Your task to perform on an android device: Open Google Chrome Image 0: 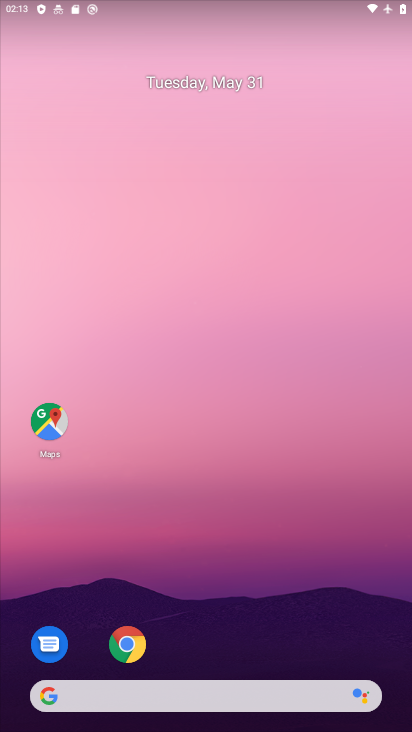
Step 0: click (128, 645)
Your task to perform on an android device: Open Google Chrome Image 1: 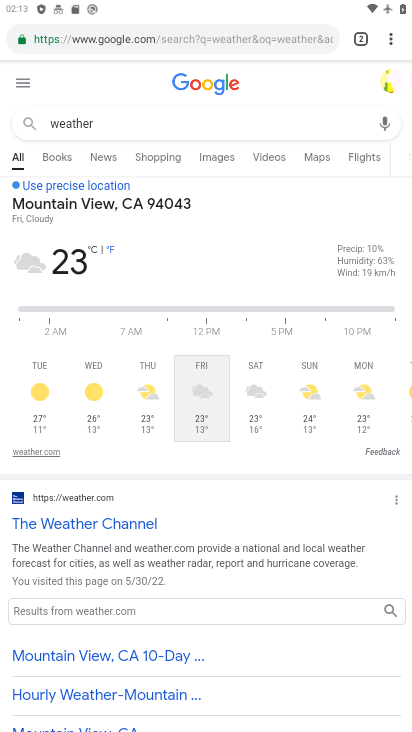
Step 1: task complete